Your task to perform on an android device: Go to Wikipedia Image 0: 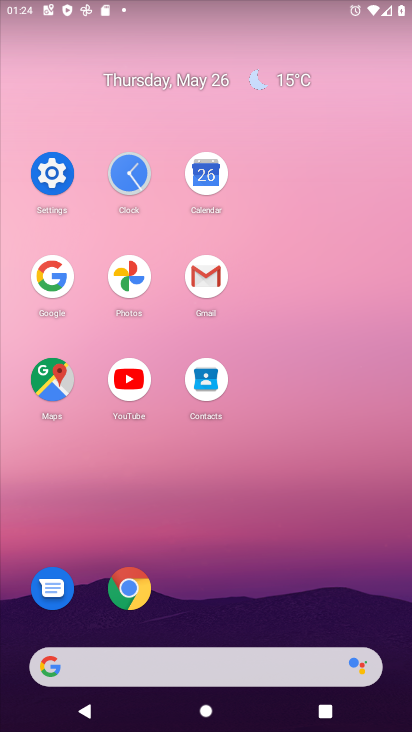
Step 0: click (136, 587)
Your task to perform on an android device: Go to Wikipedia Image 1: 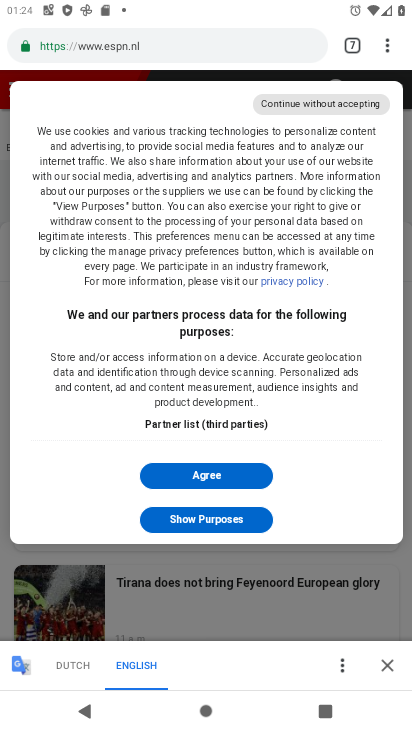
Step 1: click (366, 44)
Your task to perform on an android device: Go to Wikipedia Image 2: 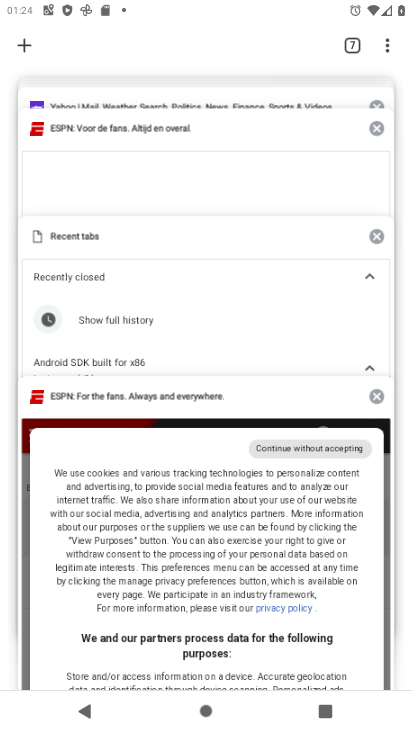
Step 2: drag from (310, 187) to (313, 489)
Your task to perform on an android device: Go to Wikipedia Image 3: 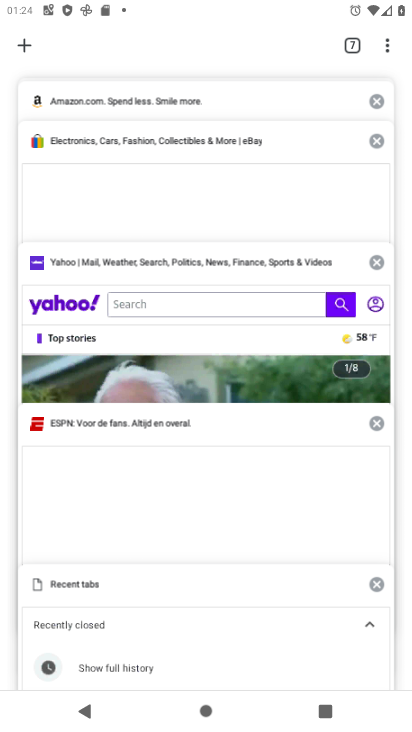
Step 3: drag from (272, 183) to (254, 483)
Your task to perform on an android device: Go to Wikipedia Image 4: 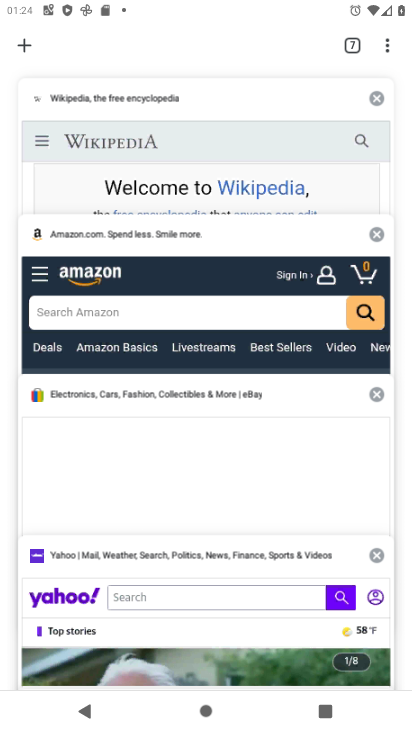
Step 4: click (200, 155)
Your task to perform on an android device: Go to Wikipedia Image 5: 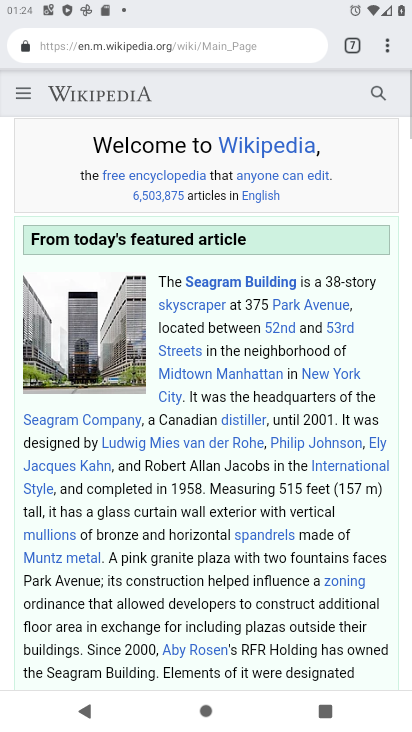
Step 5: task complete